Your task to perform on an android device: check google app version Image 0: 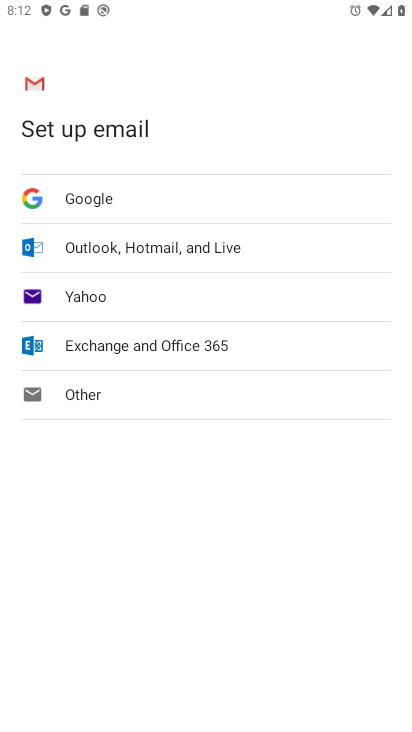
Step 0: press home button
Your task to perform on an android device: check google app version Image 1: 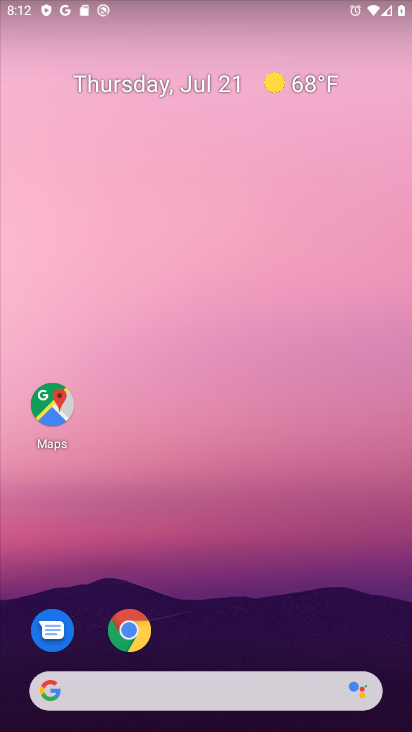
Step 1: drag from (240, 586) to (330, 21)
Your task to perform on an android device: check google app version Image 2: 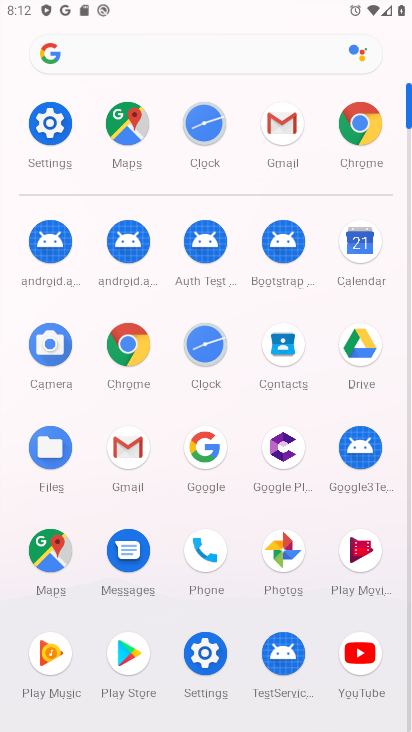
Step 2: click (180, 443)
Your task to perform on an android device: check google app version Image 3: 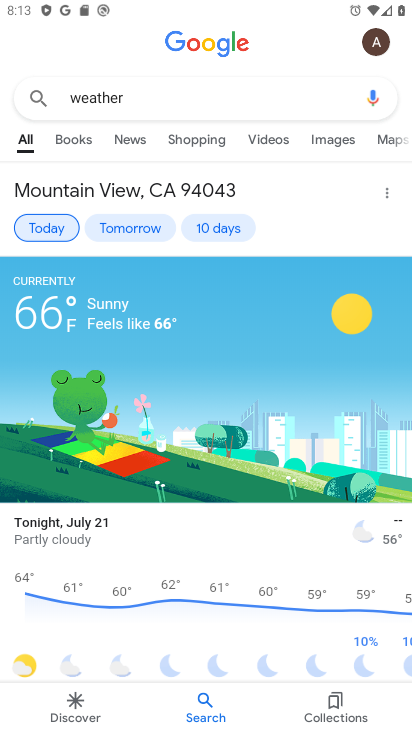
Step 3: drag from (245, 191) to (284, 620)
Your task to perform on an android device: check google app version Image 4: 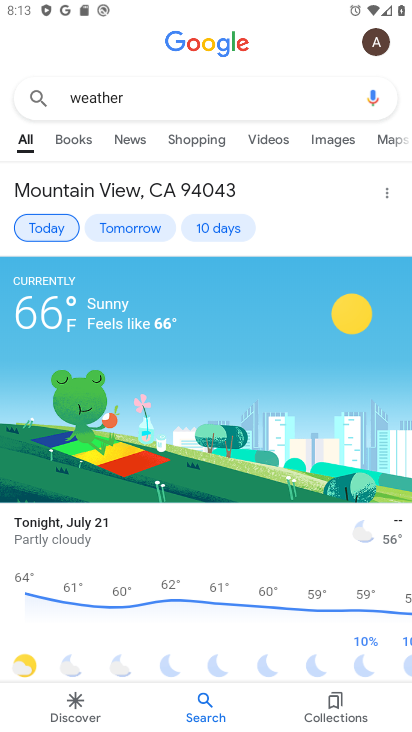
Step 4: press back button
Your task to perform on an android device: check google app version Image 5: 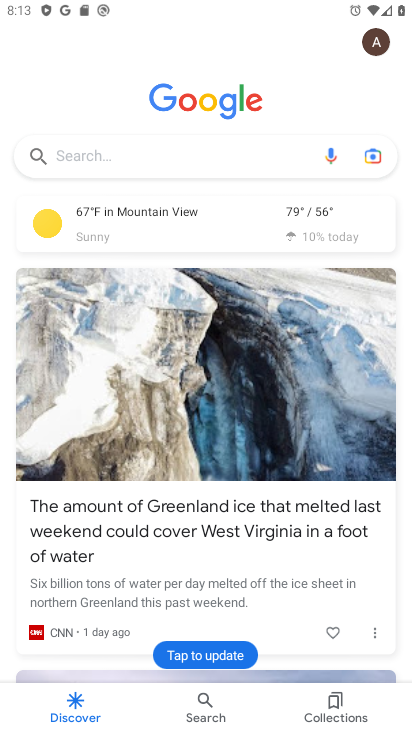
Step 5: click (386, 40)
Your task to perform on an android device: check google app version Image 6: 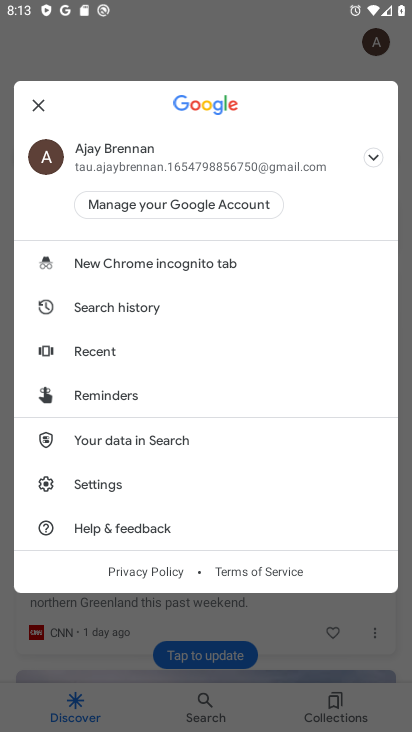
Step 6: click (104, 492)
Your task to perform on an android device: check google app version Image 7: 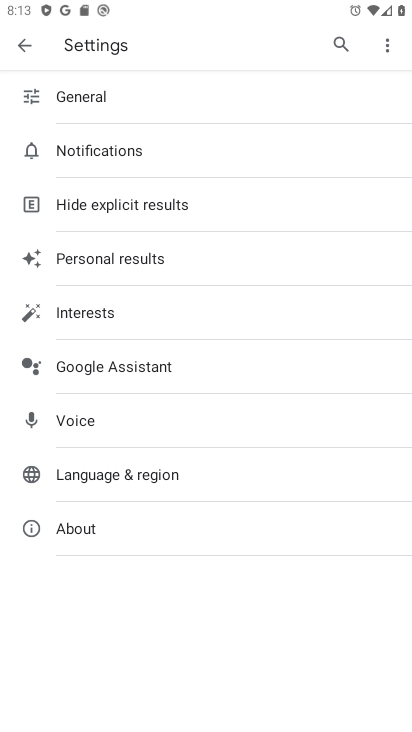
Step 7: click (100, 519)
Your task to perform on an android device: check google app version Image 8: 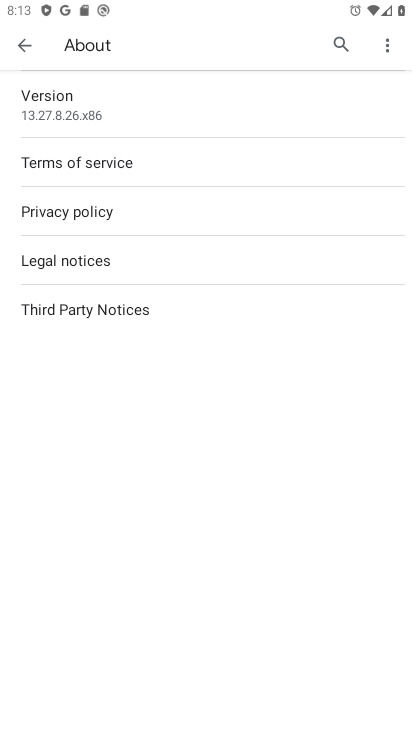
Step 8: click (84, 109)
Your task to perform on an android device: check google app version Image 9: 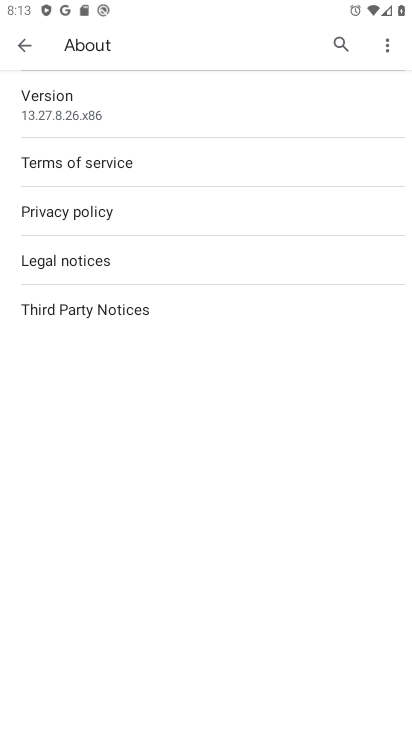
Step 9: task complete